Your task to perform on an android device: change notification settings in the gmail app Image 0: 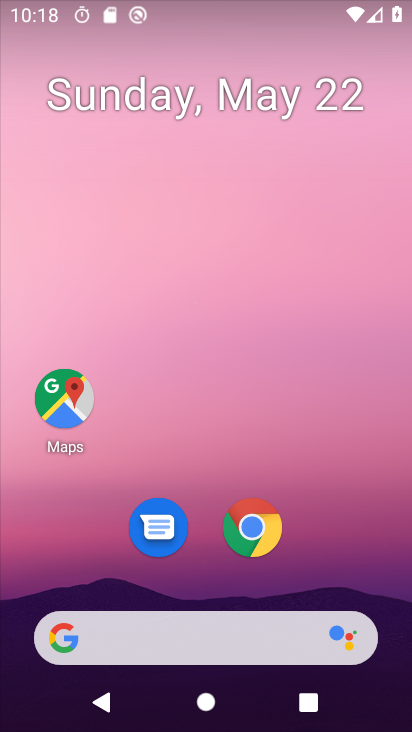
Step 0: click (276, 265)
Your task to perform on an android device: change notification settings in the gmail app Image 1: 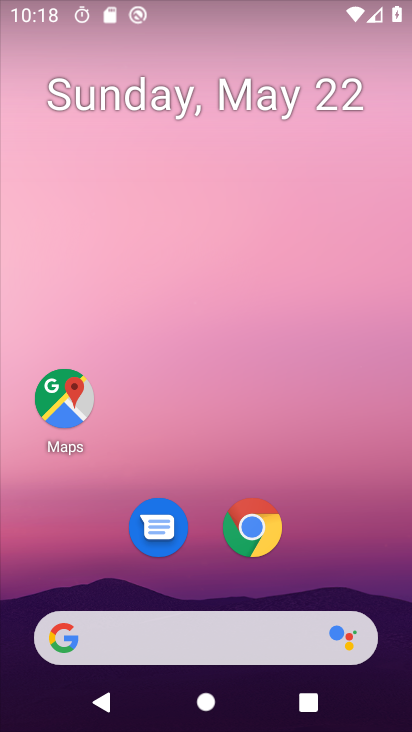
Step 1: click (281, 362)
Your task to perform on an android device: change notification settings in the gmail app Image 2: 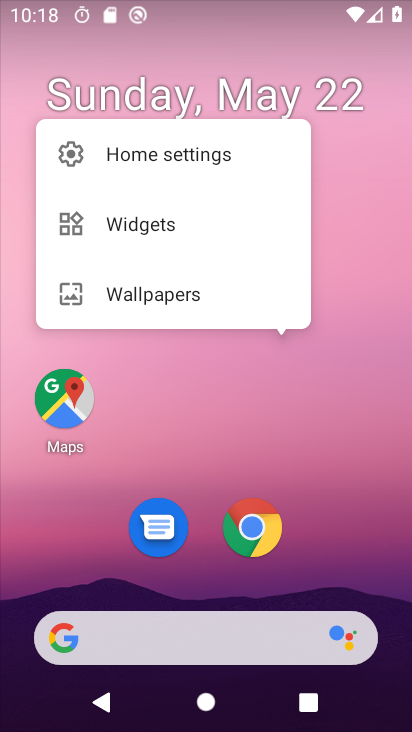
Step 2: click (352, 434)
Your task to perform on an android device: change notification settings in the gmail app Image 3: 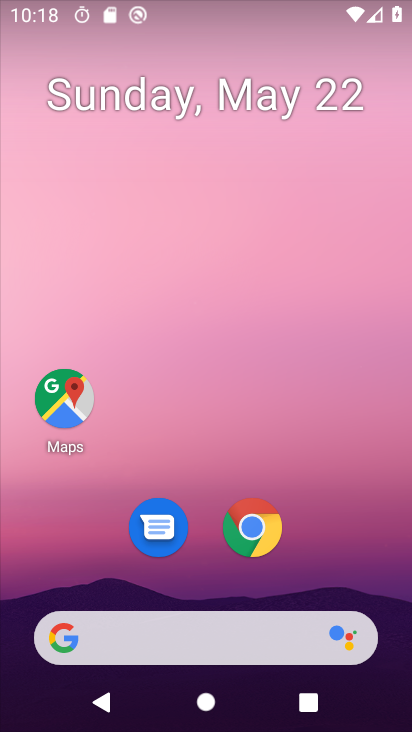
Step 3: drag from (304, 329) to (309, 193)
Your task to perform on an android device: change notification settings in the gmail app Image 4: 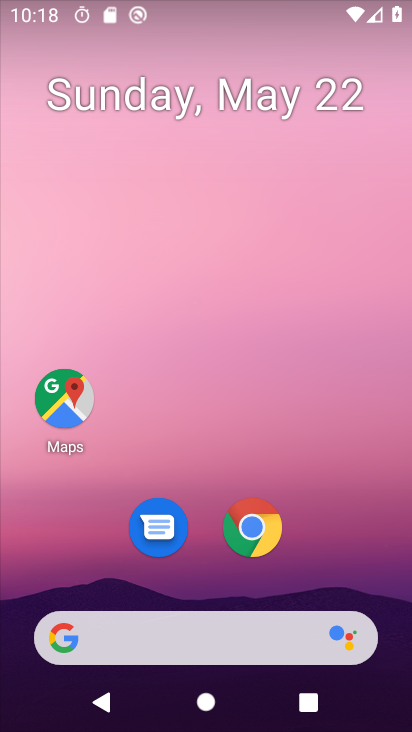
Step 4: drag from (259, 670) to (411, 306)
Your task to perform on an android device: change notification settings in the gmail app Image 5: 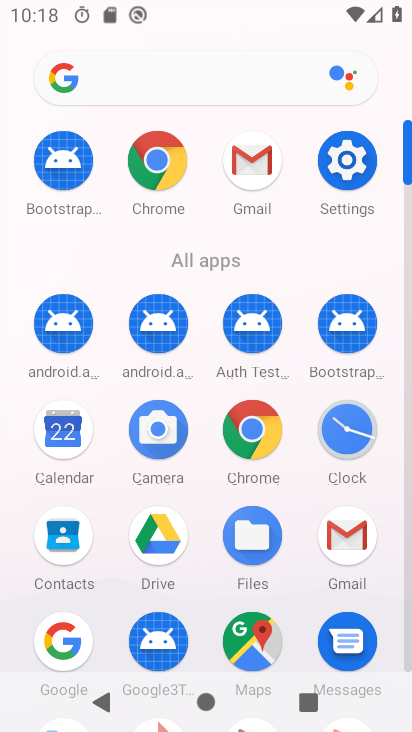
Step 5: click (355, 177)
Your task to perform on an android device: change notification settings in the gmail app Image 6: 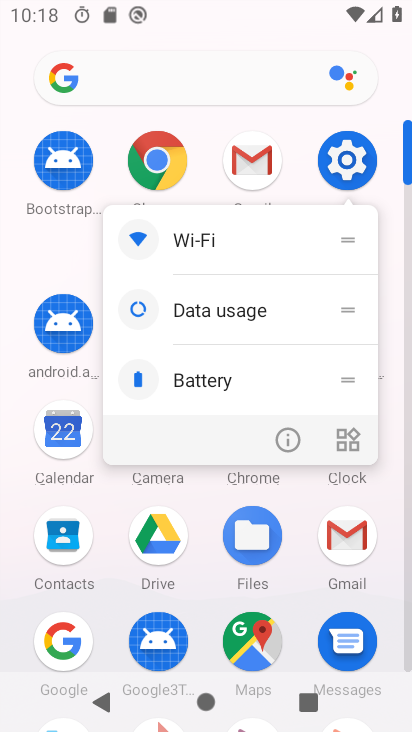
Step 6: click (355, 177)
Your task to perform on an android device: change notification settings in the gmail app Image 7: 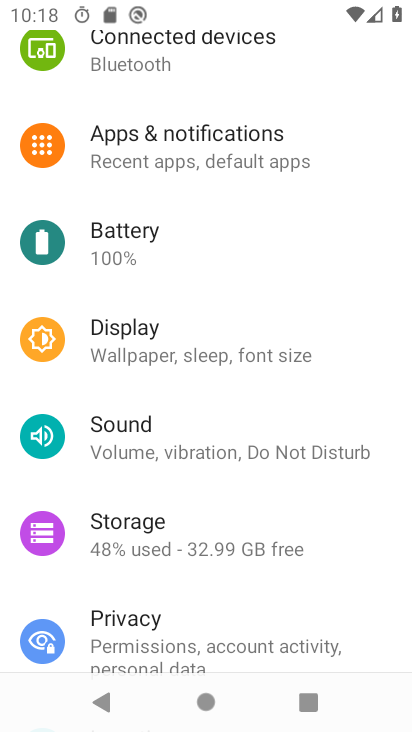
Step 7: click (241, 160)
Your task to perform on an android device: change notification settings in the gmail app Image 8: 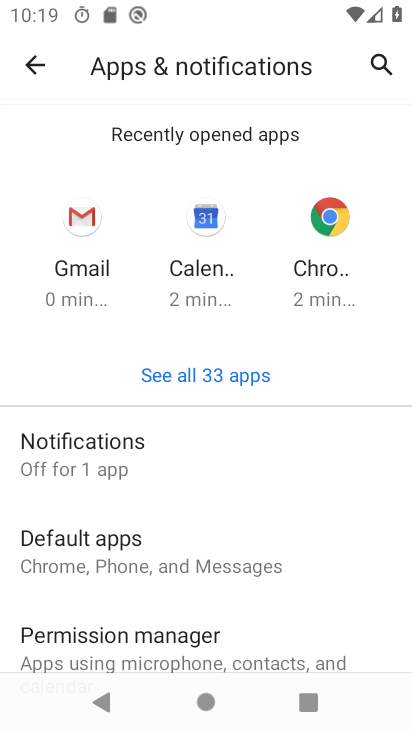
Step 8: drag from (183, 585) to (201, 197)
Your task to perform on an android device: change notification settings in the gmail app Image 9: 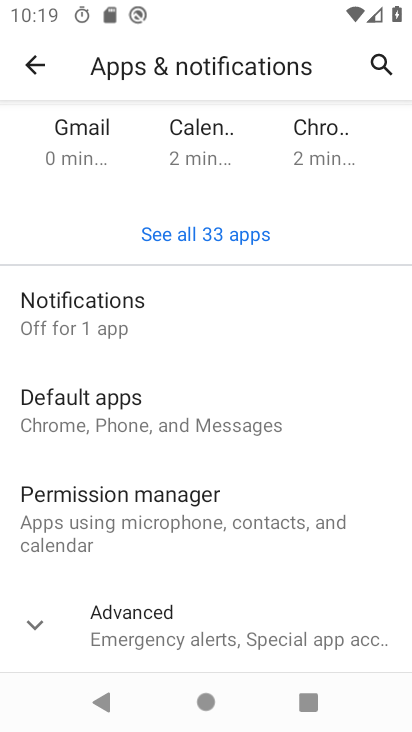
Step 9: click (177, 305)
Your task to perform on an android device: change notification settings in the gmail app Image 10: 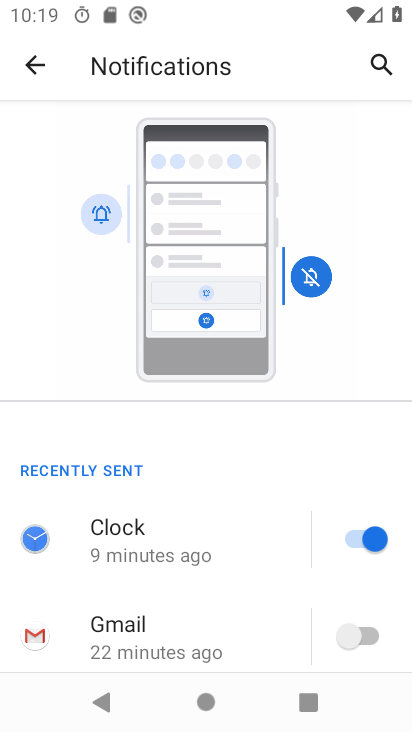
Step 10: click (370, 642)
Your task to perform on an android device: change notification settings in the gmail app Image 11: 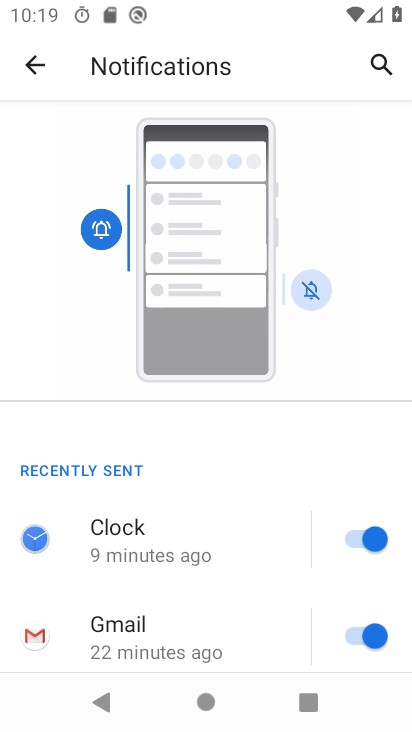
Step 11: task complete